Your task to perform on an android device: toggle improve location accuracy Image 0: 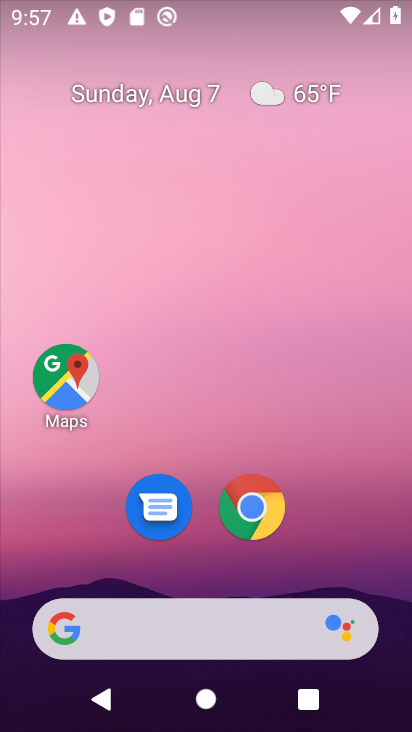
Step 0: drag from (221, 427) to (234, 335)
Your task to perform on an android device: toggle improve location accuracy Image 1: 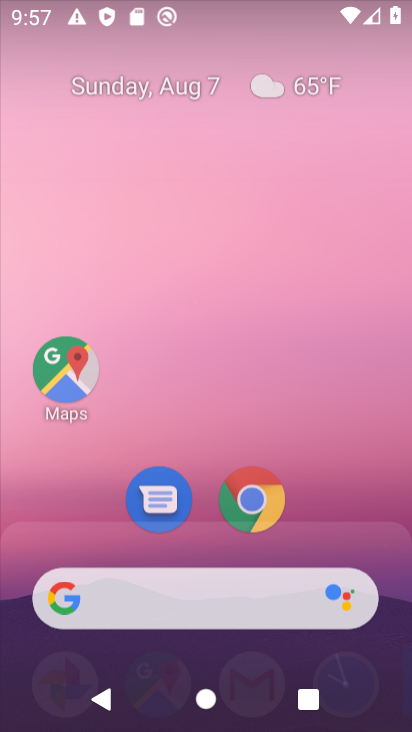
Step 1: drag from (216, 435) to (266, 74)
Your task to perform on an android device: toggle improve location accuracy Image 2: 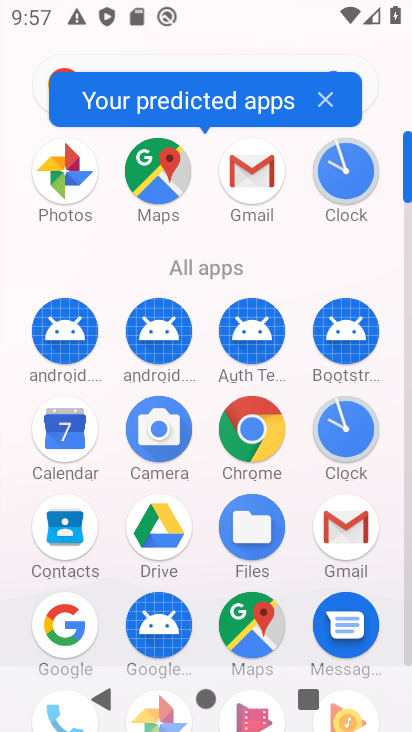
Step 2: drag from (287, 585) to (296, 209)
Your task to perform on an android device: toggle improve location accuracy Image 3: 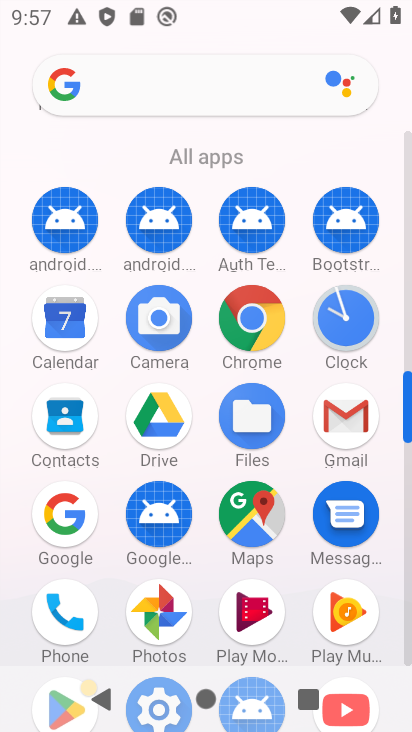
Step 3: drag from (204, 625) to (205, 308)
Your task to perform on an android device: toggle improve location accuracy Image 4: 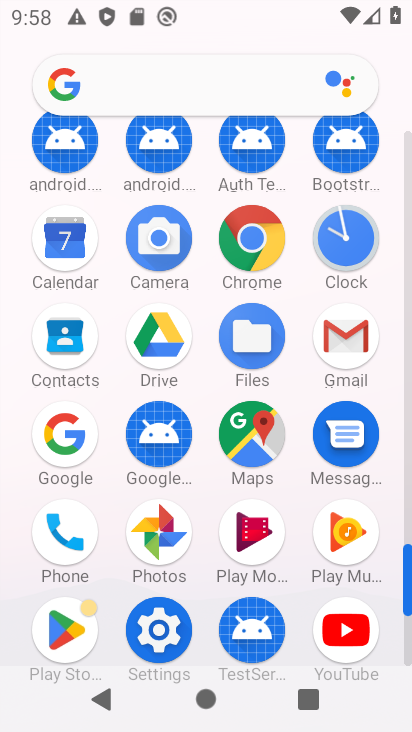
Step 4: click (160, 624)
Your task to perform on an android device: toggle improve location accuracy Image 5: 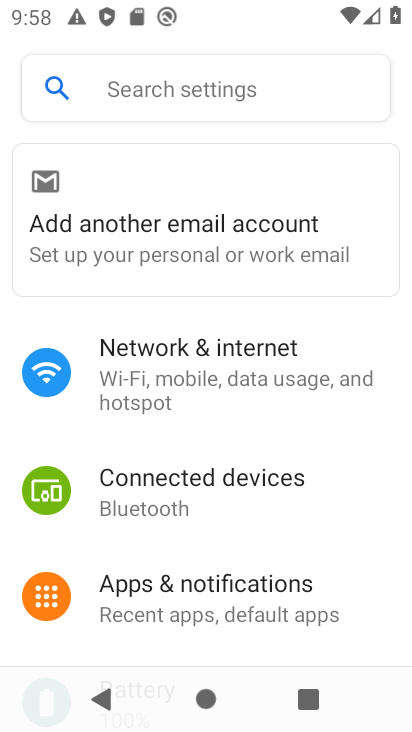
Step 5: drag from (244, 526) to (272, 168)
Your task to perform on an android device: toggle improve location accuracy Image 6: 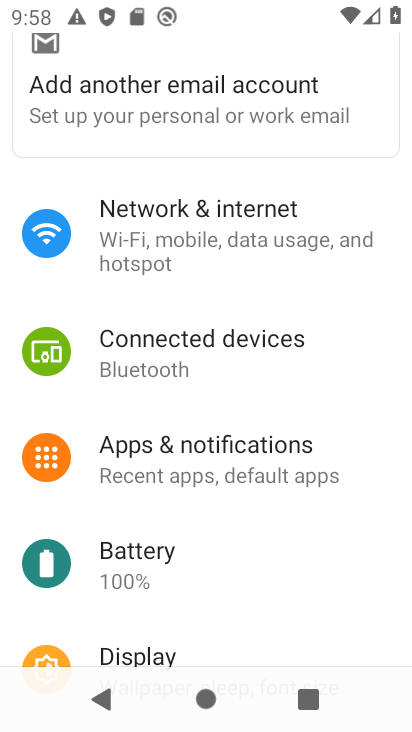
Step 6: drag from (235, 614) to (254, 260)
Your task to perform on an android device: toggle improve location accuracy Image 7: 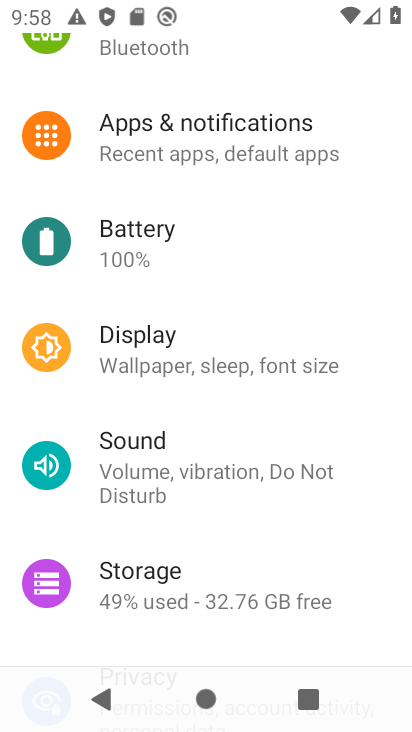
Step 7: drag from (259, 519) to (243, 228)
Your task to perform on an android device: toggle improve location accuracy Image 8: 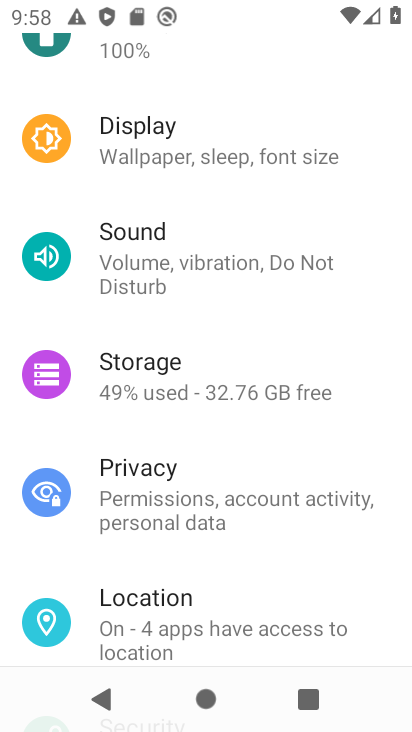
Step 8: click (212, 607)
Your task to perform on an android device: toggle improve location accuracy Image 9: 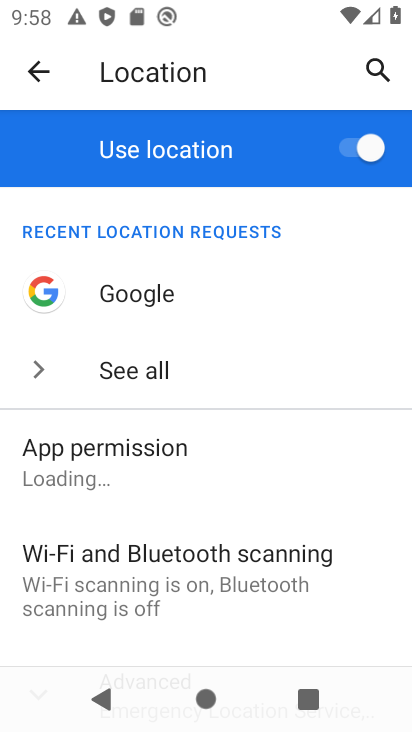
Step 9: task complete